Your task to perform on an android device: turn pop-ups off in chrome Image 0: 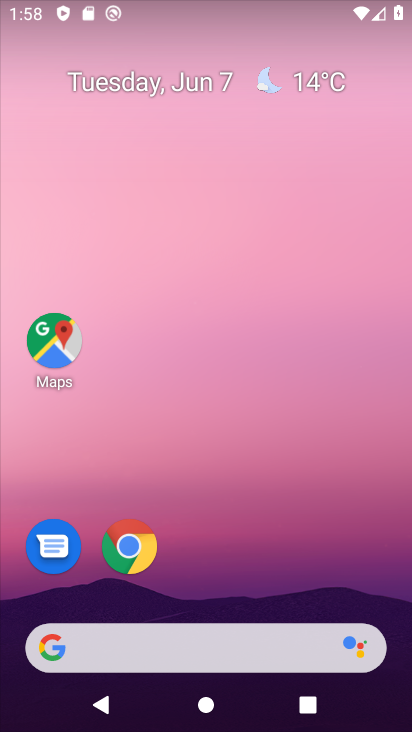
Step 0: drag from (186, 581) to (162, 289)
Your task to perform on an android device: turn pop-ups off in chrome Image 1: 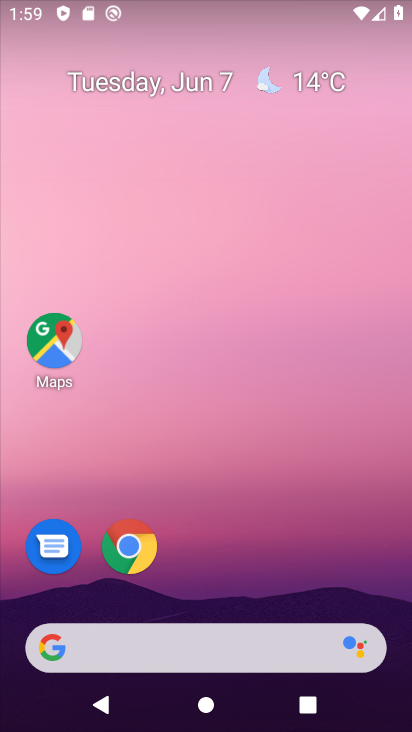
Step 1: drag from (162, 595) to (239, 225)
Your task to perform on an android device: turn pop-ups off in chrome Image 2: 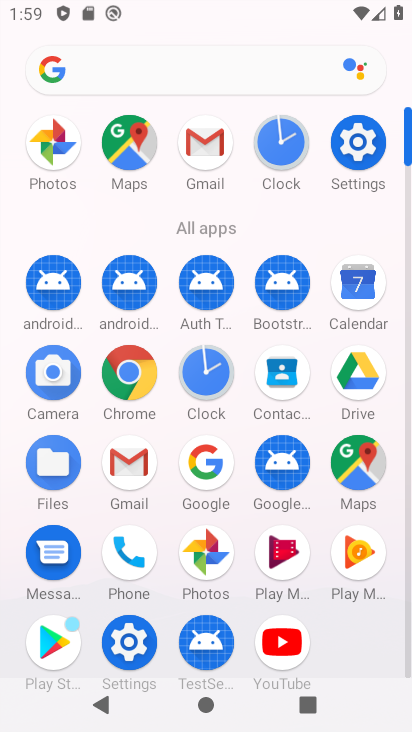
Step 2: click (361, 159)
Your task to perform on an android device: turn pop-ups off in chrome Image 3: 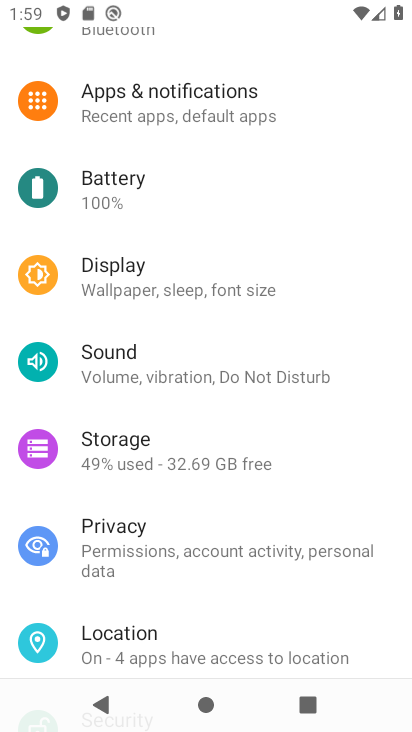
Step 3: drag from (156, 559) to (186, 168)
Your task to perform on an android device: turn pop-ups off in chrome Image 4: 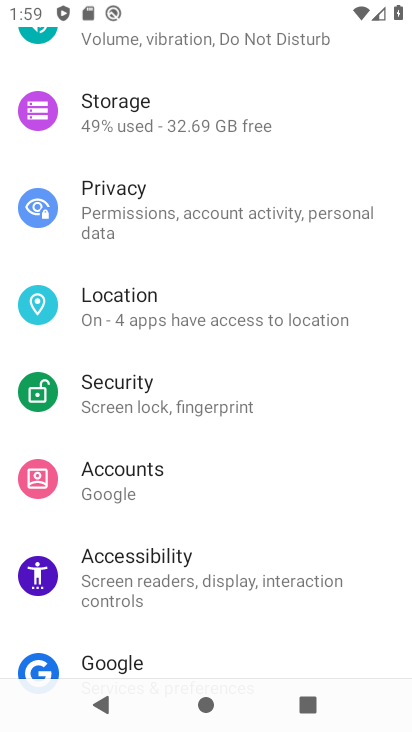
Step 4: drag from (186, 168) to (189, 577)
Your task to perform on an android device: turn pop-ups off in chrome Image 5: 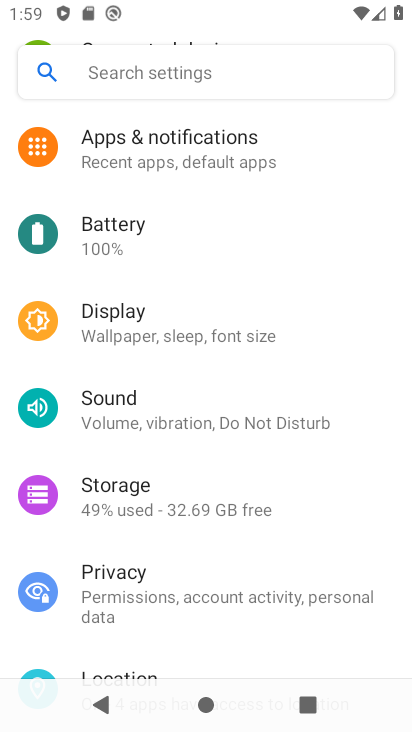
Step 5: drag from (156, 153) to (76, 524)
Your task to perform on an android device: turn pop-ups off in chrome Image 6: 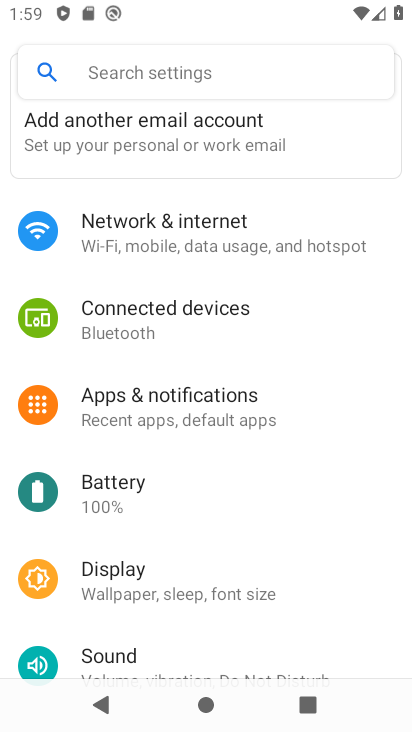
Step 6: press home button
Your task to perform on an android device: turn pop-ups off in chrome Image 7: 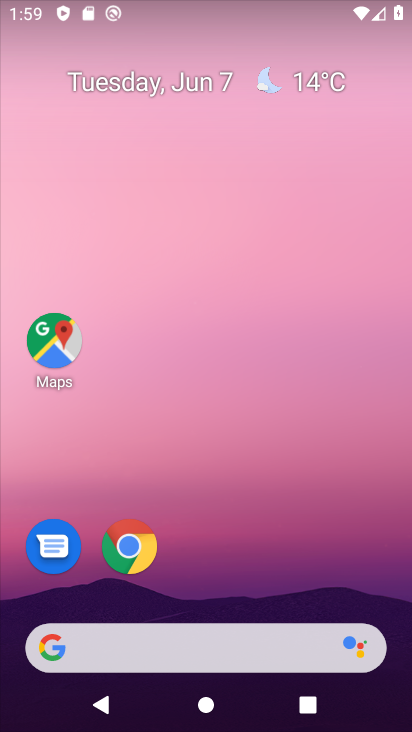
Step 7: click (123, 540)
Your task to perform on an android device: turn pop-ups off in chrome Image 8: 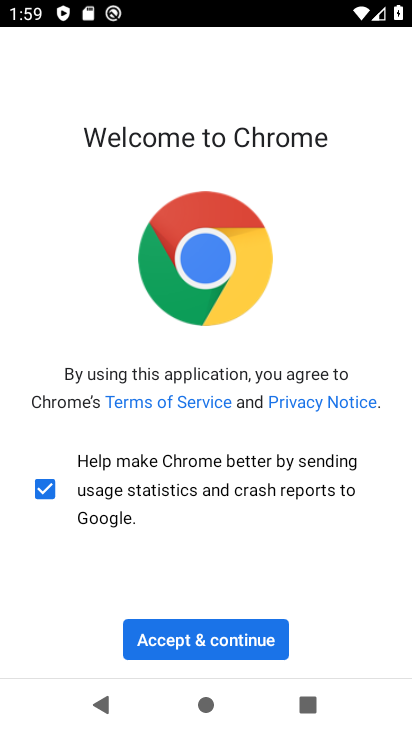
Step 8: click (210, 641)
Your task to perform on an android device: turn pop-ups off in chrome Image 9: 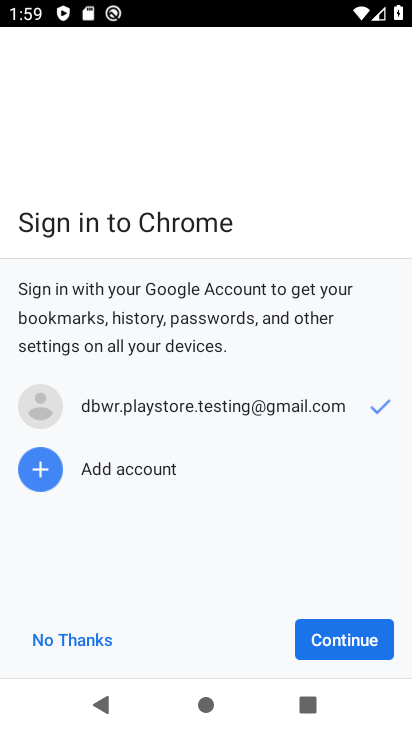
Step 9: click (381, 641)
Your task to perform on an android device: turn pop-ups off in chrome Image 10: 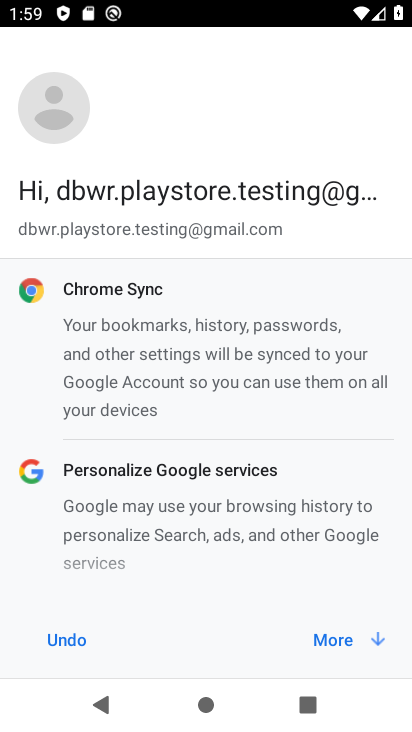
Step 10: click (376, 637)
Your task to perform on an android device: turn pop-ups off in chrome Image 11: 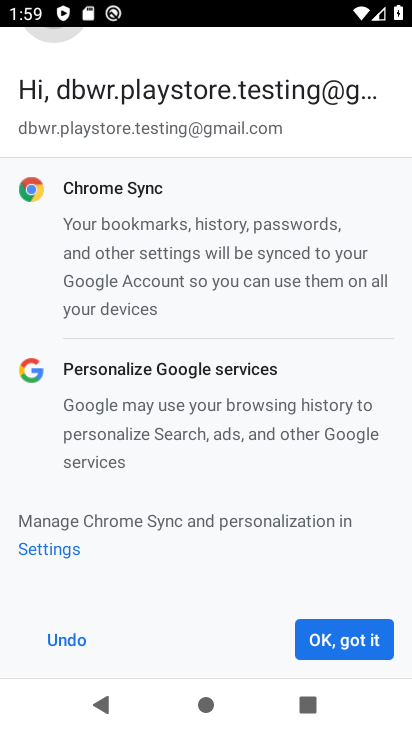
Step 11: click (376, 637)
Your task to perform on an android device: turn pop-ups off in chrome Image 12: 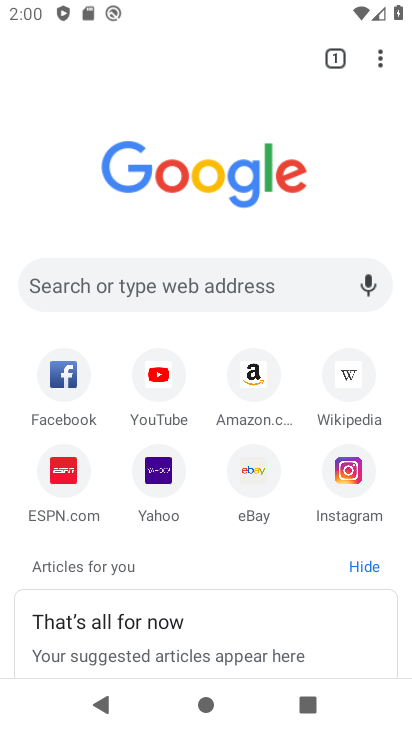
Step 12: click (384, 52)
Your task to perform on an android device: turn pop-ups off in chrome Image 13: 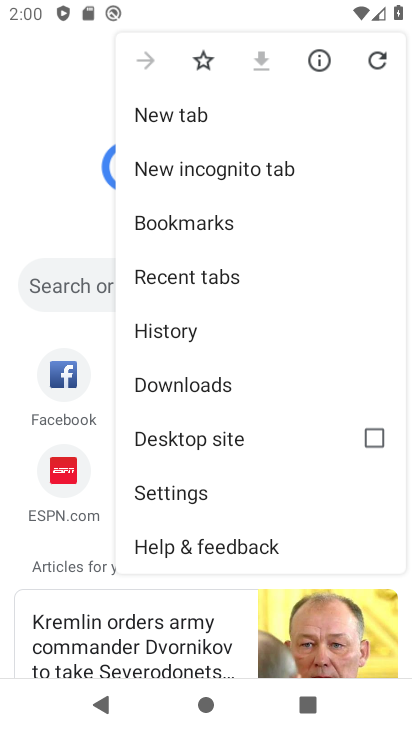
Step 13: click (174, 502)
Your task to perform on an android device: turn pop-ups off in chrome Image 14: 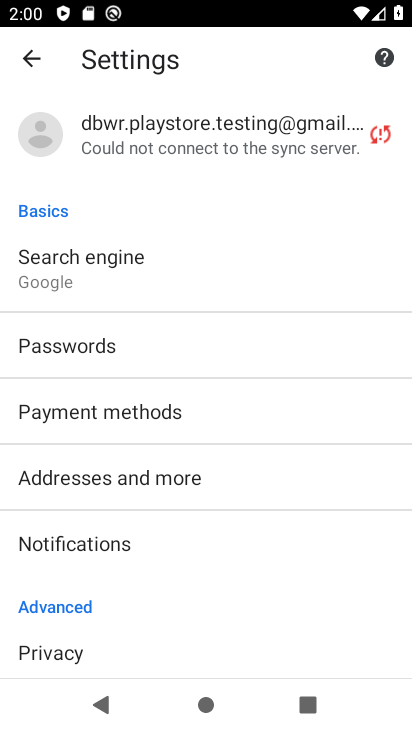
Step 14: drag from (76, 567) to (150, 164)
Your task to perform on an android device: turn pop-ups off in chrome Image 15: 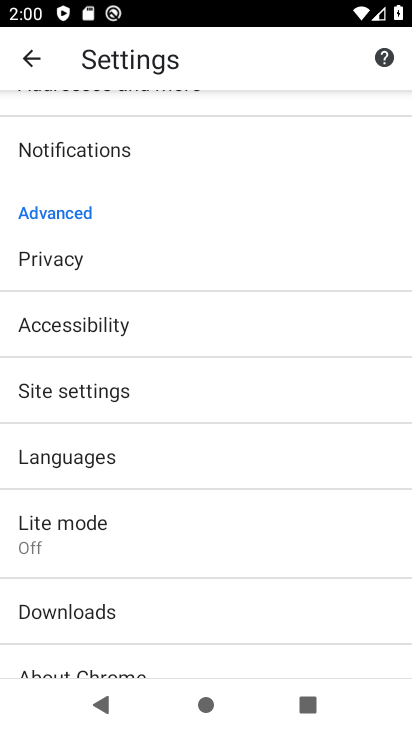
Step 15: drag from (173, 618) to (156, 273)
Your task to perform on an android device: turn pop-ups off in chrome Image 16: 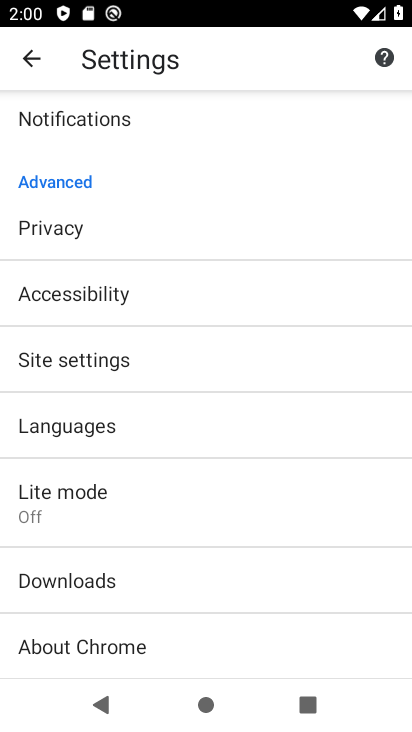
Step 16: drag from (140, 552) to (279, 44)
Your task to perform on an android device: turn pop-ups off in chrome Image 17: 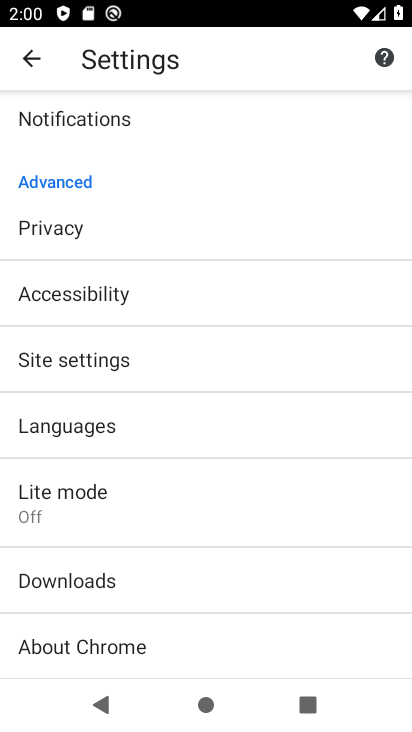
Step 17: click (73, 370)
Your task to perform on an android device: turn pop-ups off in chrome Image 18: 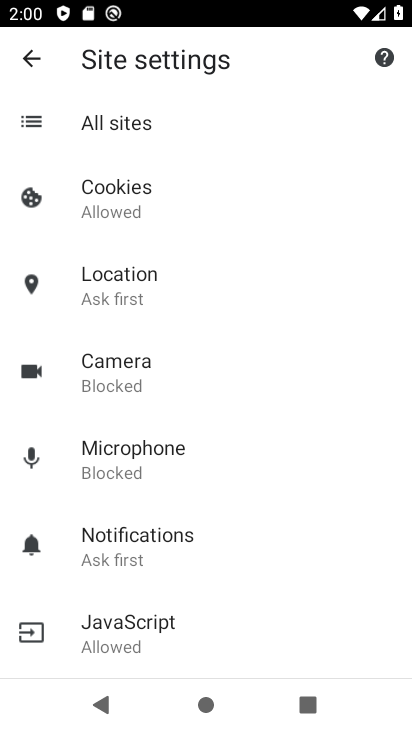
Step 18: drag from (145, 637) to (186, 176)
Your task to perform on an android device: turn pop-ups off in chrome Image 19: 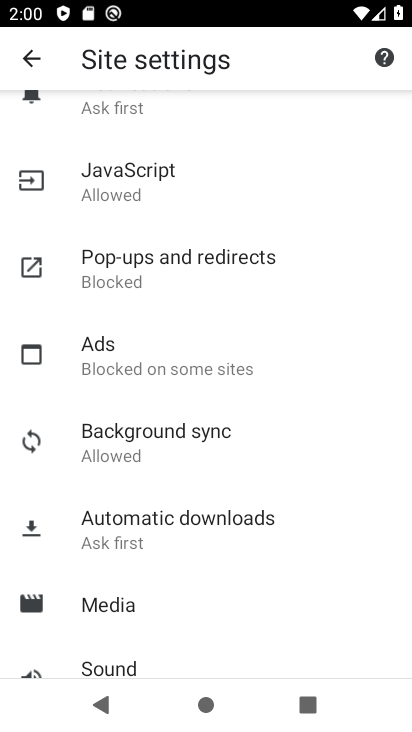
Step 19: click (172, 277)
Your task to perform on an android device: turn pop-ups off in chrome Image 20: 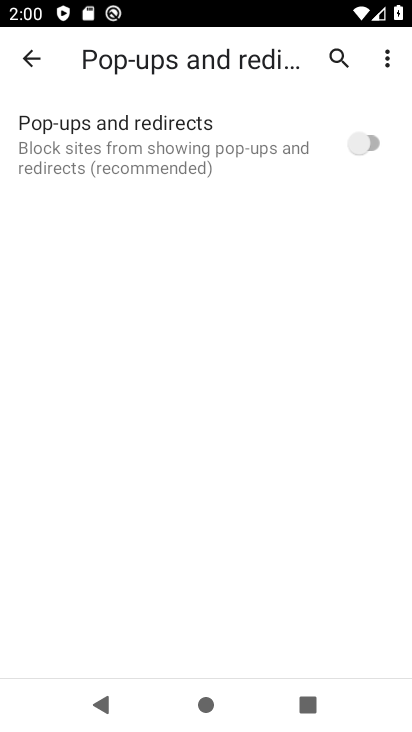
Step 20: task complete